Your task to perform on an android device: turn on wifi Image 0: 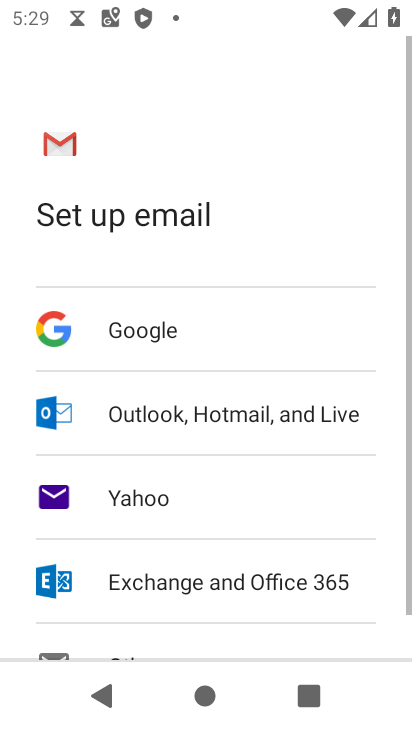
Step 0: press back button
Your task to perform on an android device: turn on wifi Image 1: 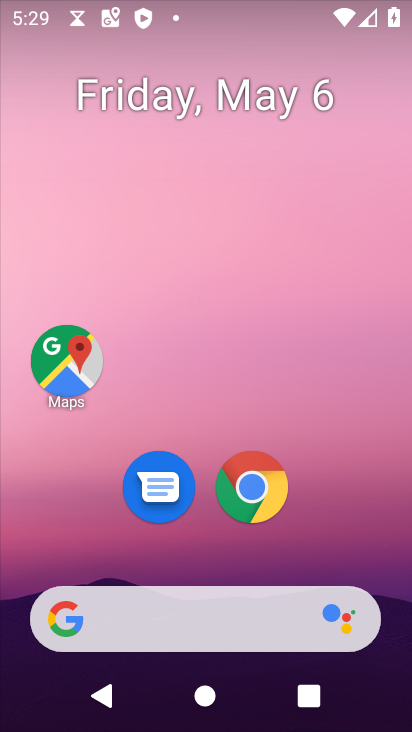
Step 1: drag from (330, 530) to (270, 11)
Your task to perform on an android device: turn on wifi Image 2: 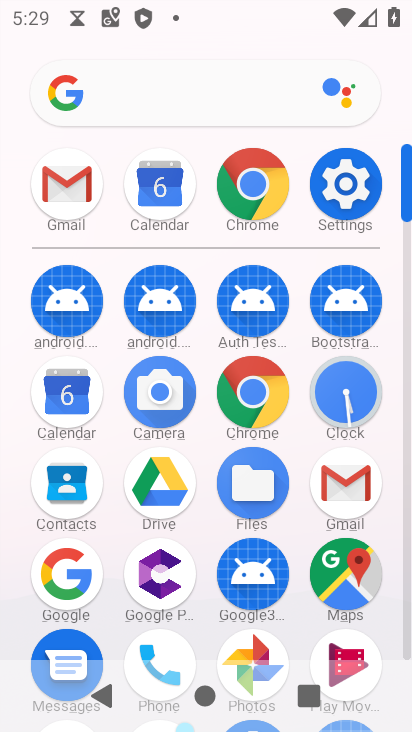
Step 2: click (346, 181)
Your task to perform on an android device: turn on wifi Image 3: 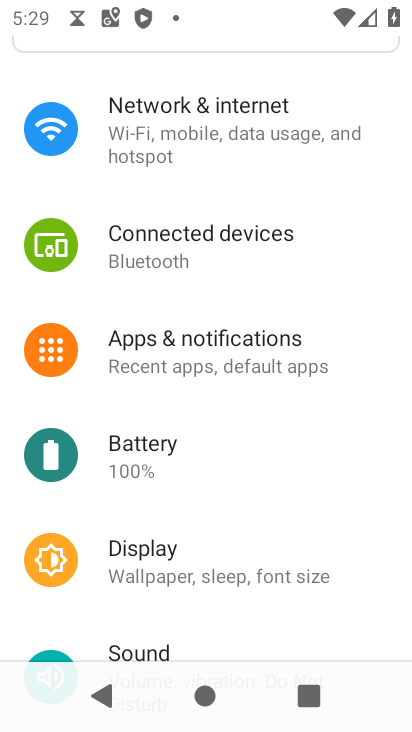
Step 3: click (271, 102)
Your task to perform on an android device: turn on wifi Image 4: 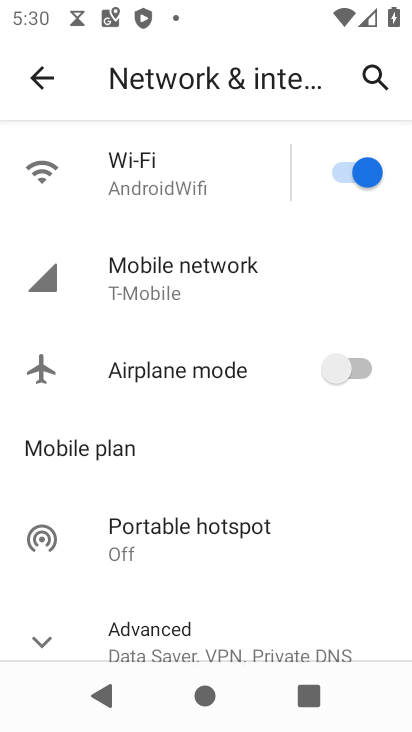
Step 4: task complete